Your task to perform on an android device: toggle notifications settings in the gmail app Image 0: 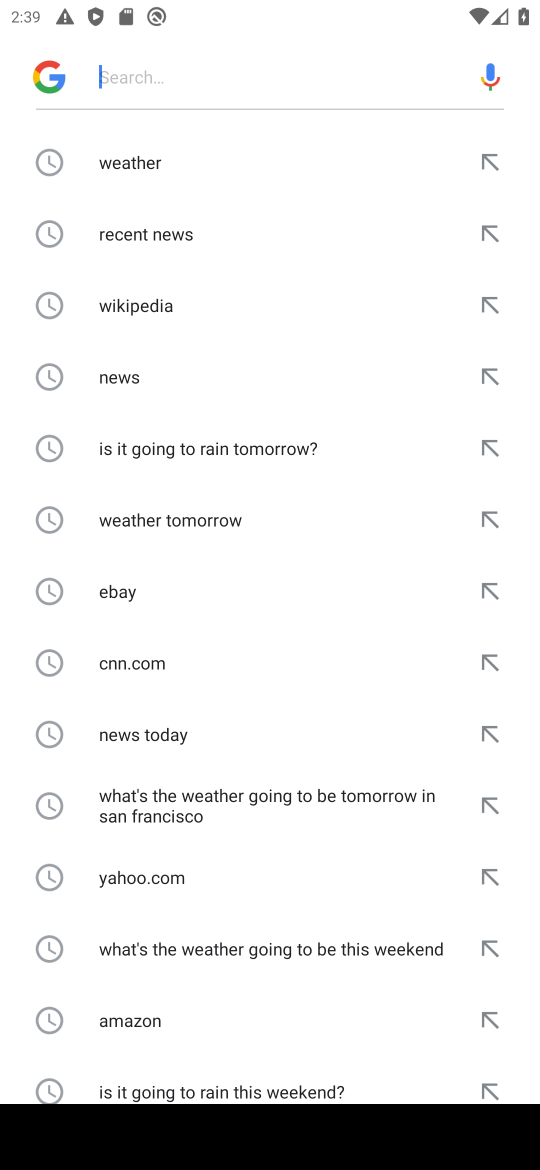
Step 0: press home button
Your task to perform on an android device: toggle notifications settings in the gmail app Image 1: 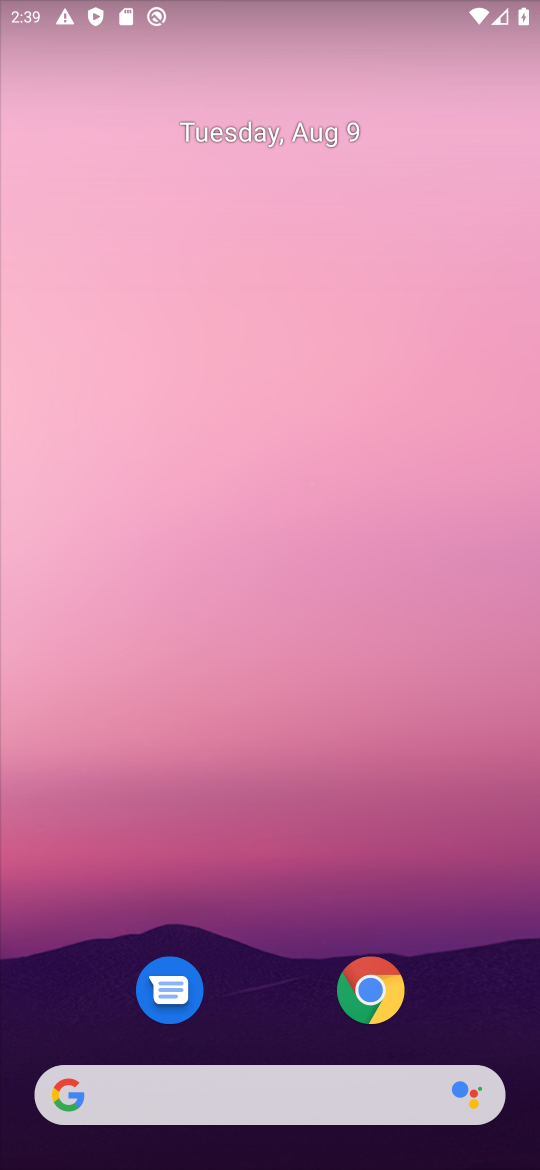
Step 1: drag from (217, 1109) to (4, 328)
Your task to perform on an android device: toggle notifications settings in the gmail app Image 2: 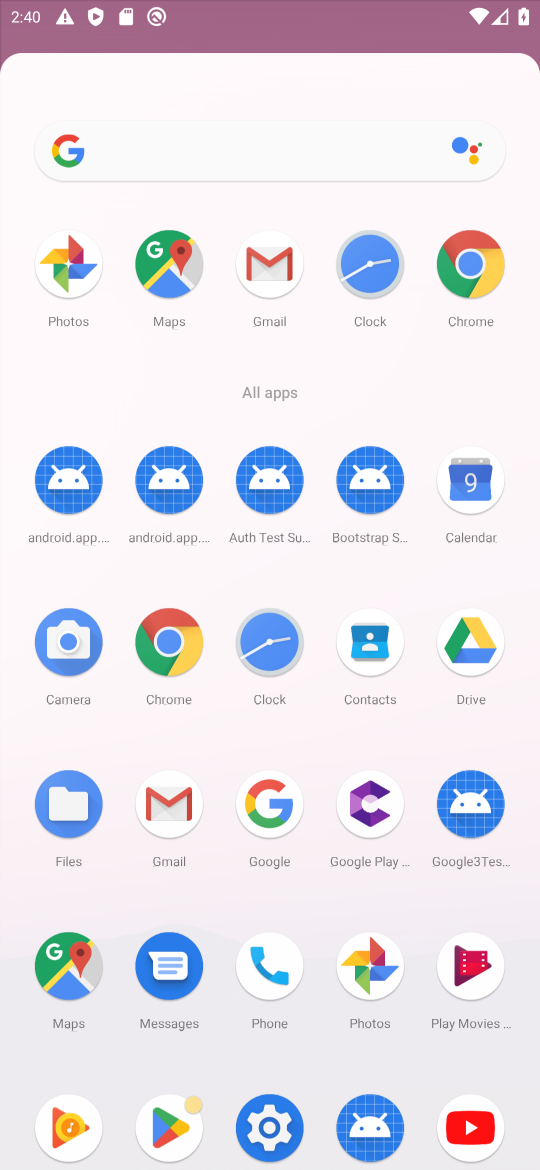
Step 2: click (175, 751)
Your task to perform on an android device: toggle notifications settings in the gmail app Image 3: 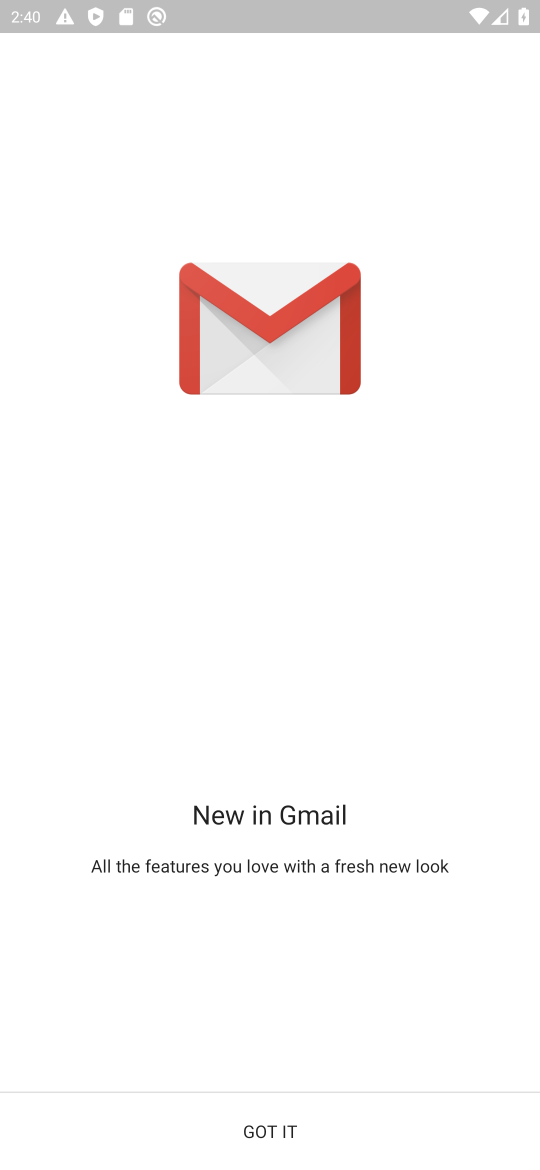
Step 3: click (235, 1113)
Your task to perform on an android device: toggle notifications settings in the gmail app Image 4: 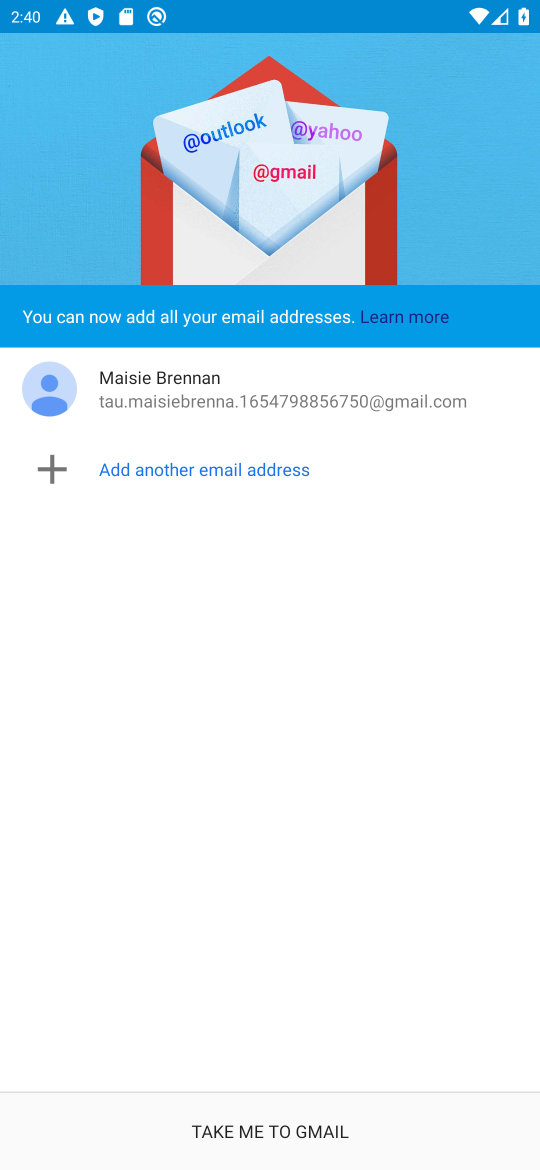
Step 4: click (297, 1117)
Your task to perform on an android device: toggle notifications settings in the gmail app Image 5: 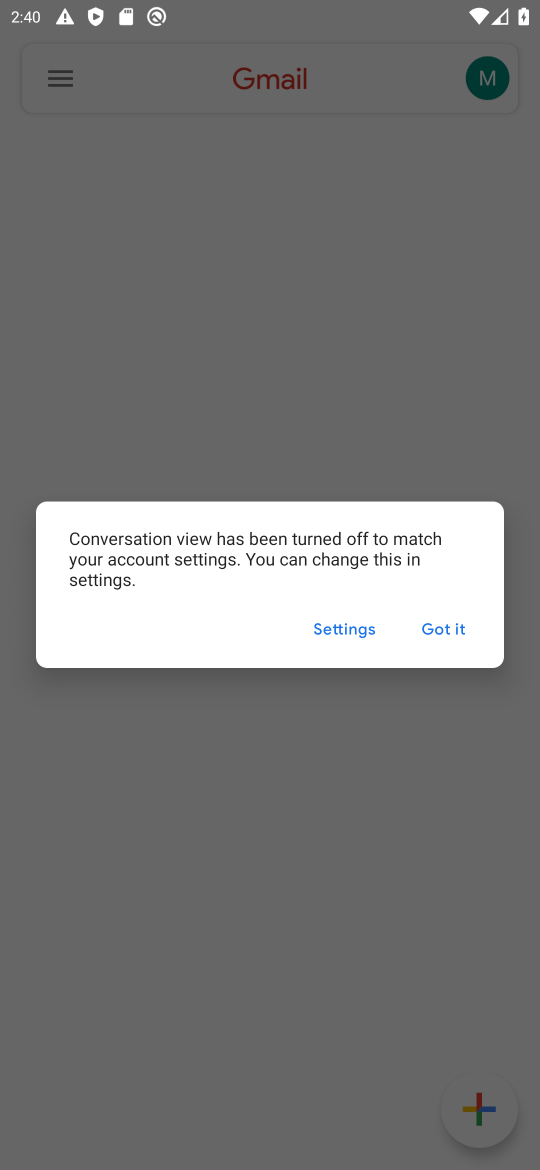
Step 5: click (472, 626)
Your task to perform on an android device: toggle notifications settings in the gmail app Image 6: 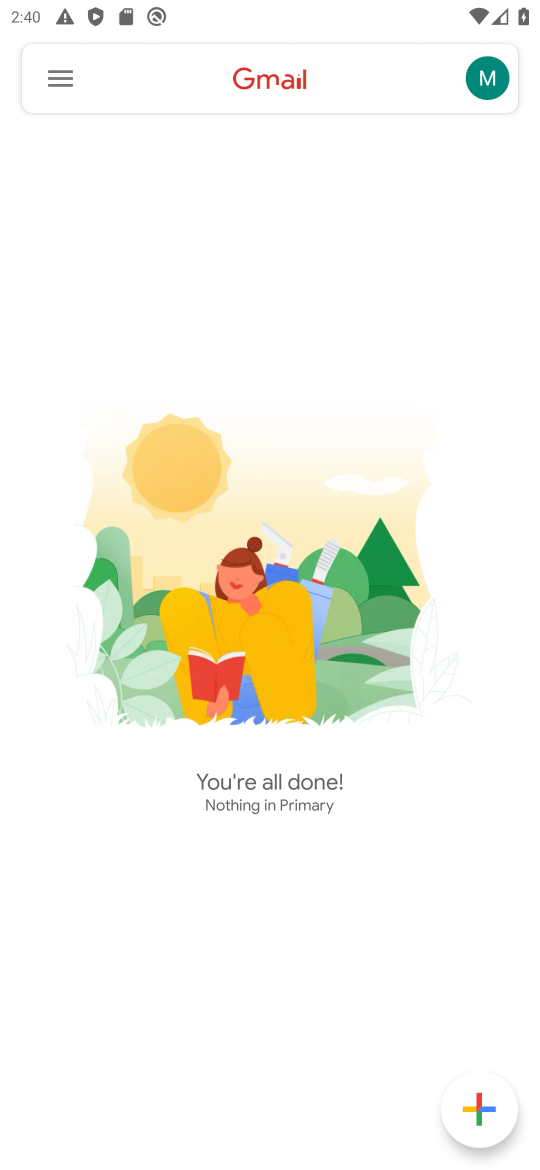
Step 6: click (66, 65)
Your task to perform on an android device: toggle notifications settings in the gmail app Image 7: 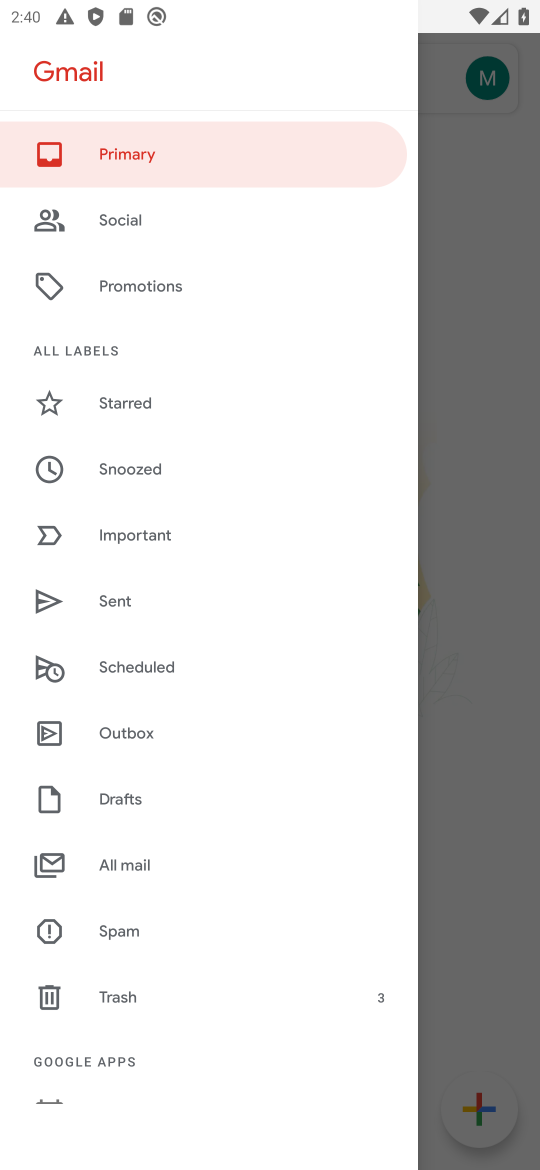
Step 7: drag from (259, 1070) to (235, 131)
Your task to perform on an android device: toggle notifications settings in the gmail app Image 8: 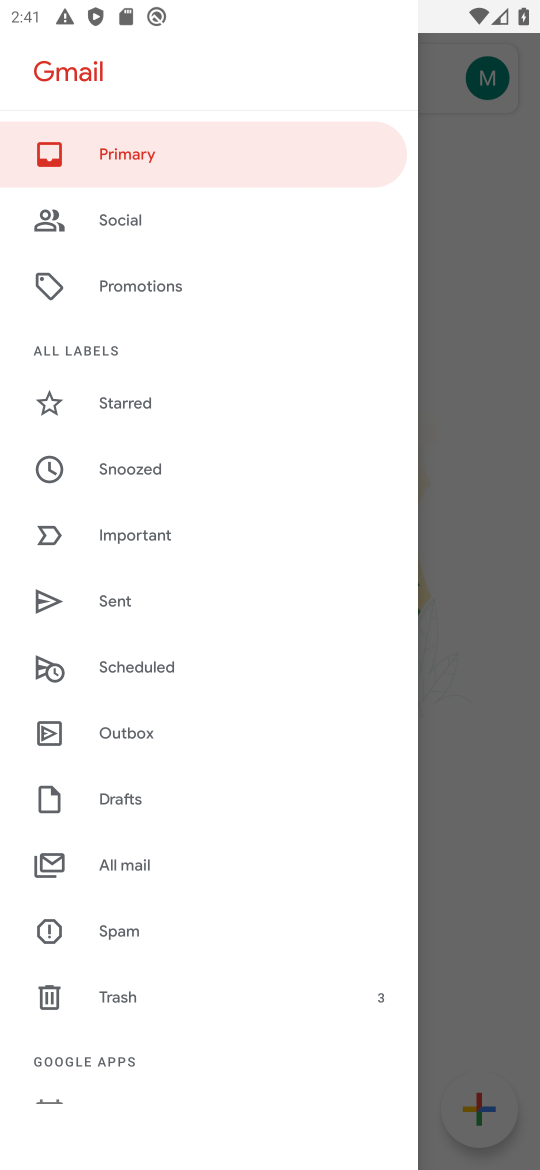
Step 8: drag from (193, 975) to (217, 411)
Your task to perform on an android device: toggle notifications settings in the gmail app Image 9: 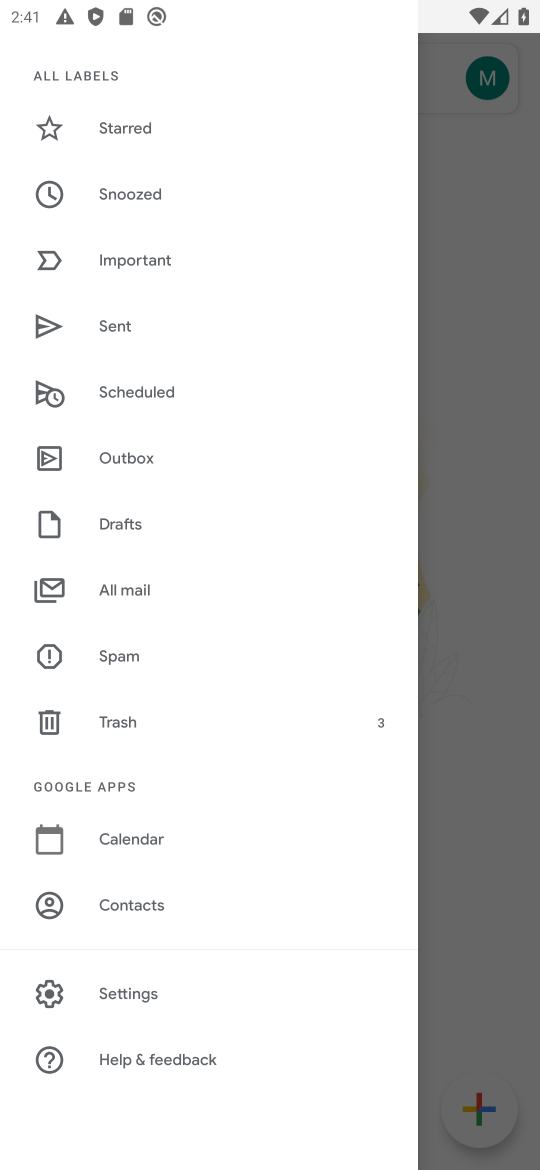
Step 9: click (139, 968)
Your task to perform on an android device: toggle notifications settings in the gmail app Image 10: 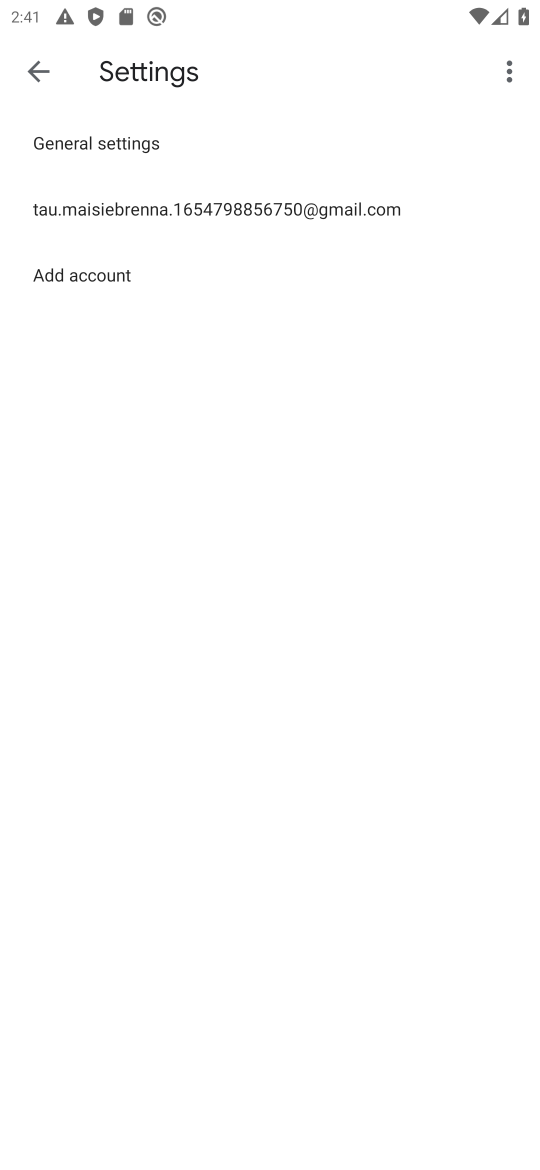
Step 10: click (184, 206)
Your task to perform on an android device: toggle notifications settings in the gmail app Image 11: 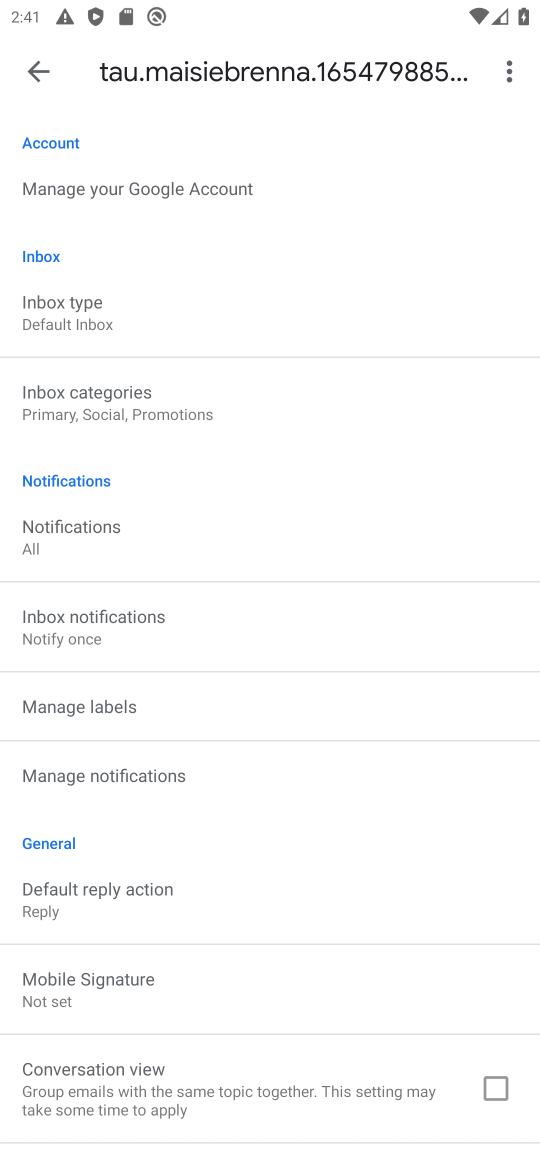
Step 11: click (73, 752)
Your task to perform on an android device: toggle notifications settings in the gmail app Image 12: 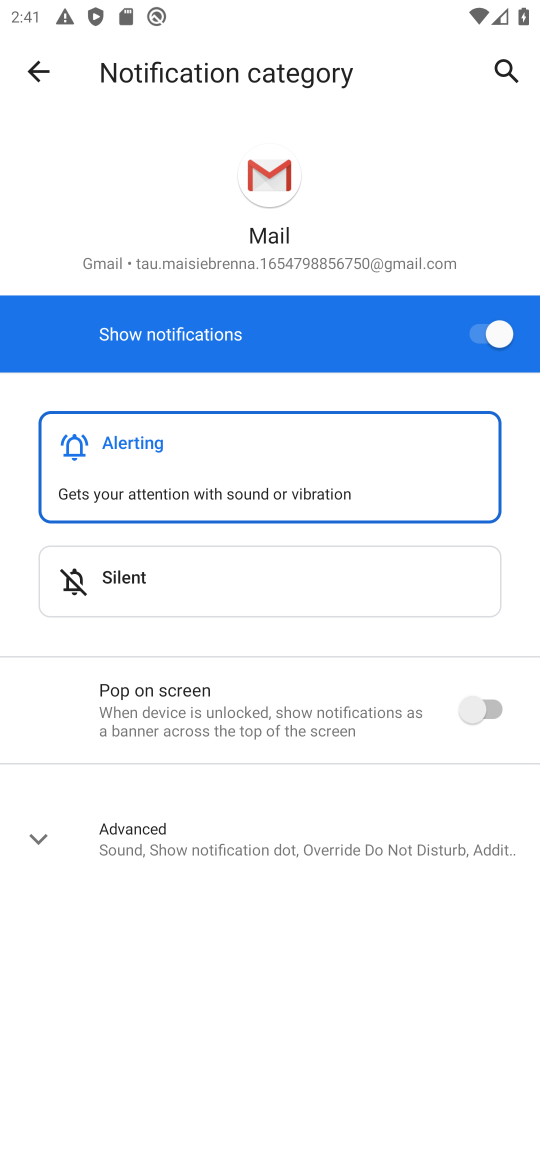
Step 12: click (480, 323)
Your task to perform on an android device: toggle notifications settings in the gmail app Image 13: 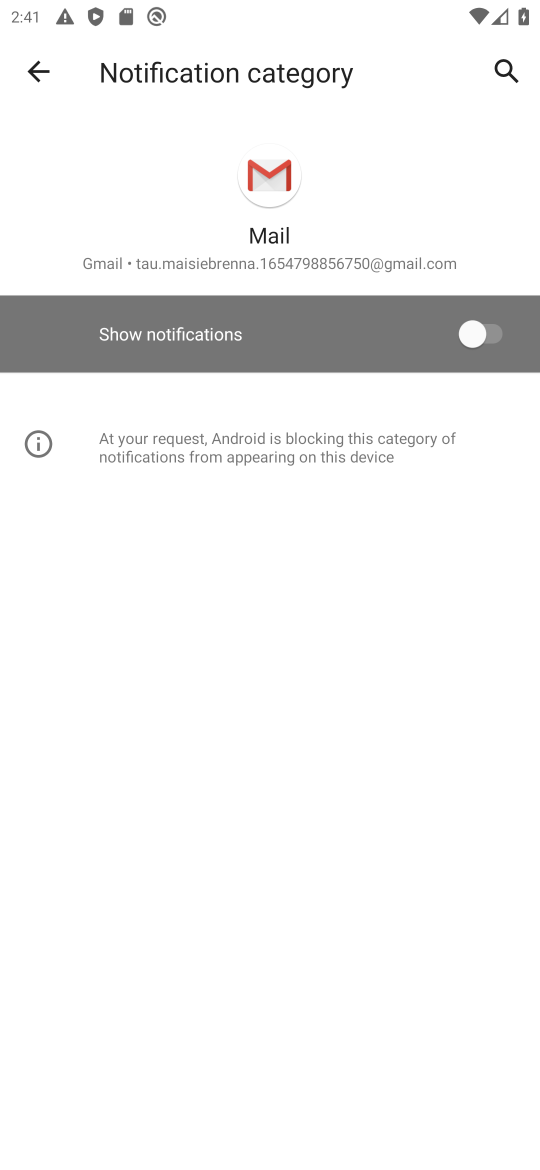
Step 13: task complete